Your task to perform on an android device: Open my contact list Image 0: 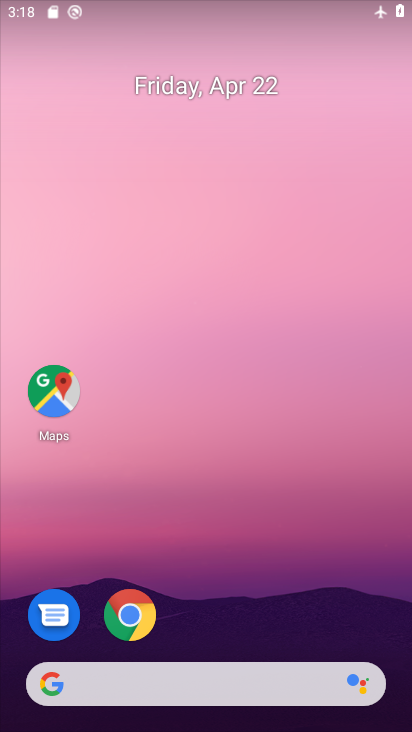
Step 0: drag from (198, 561) to (224, 265)
Your task to perform on an android device: Open my contact list Image 1: 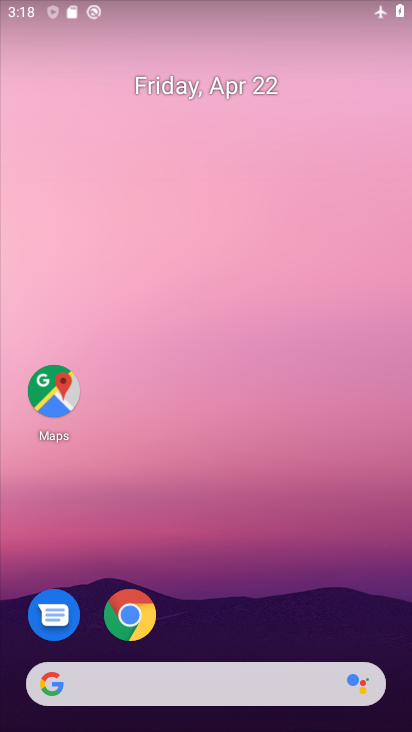
Step 1: drag from (259, 571) to (318, 147)
Your task to perform on an android device: Open my contact list Image 2: 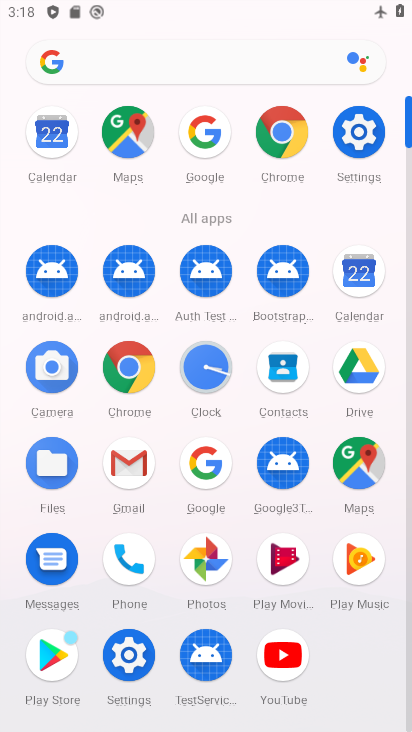
Step 2: click (295, 370)
Your task to perform on an android device: Open my contact list Image 3: 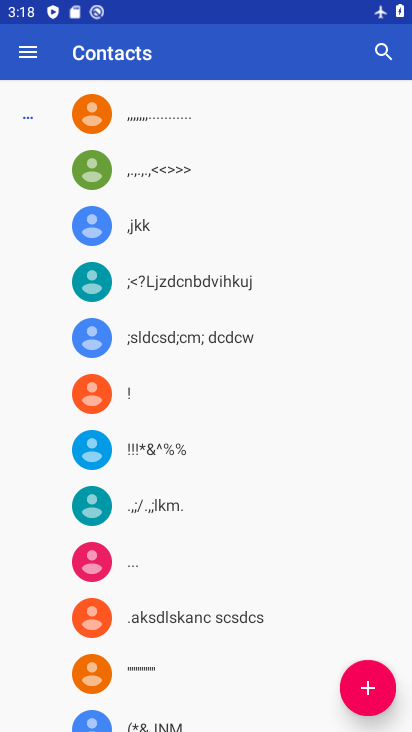
Step 3: task complete